Your task to perform on an android device: empty trash in the gmail app Image 0: 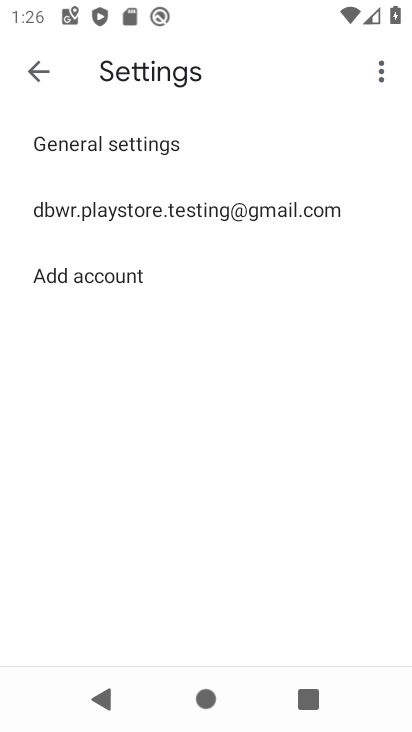
Step 0: press back button
Your task to perform on an android device: empty trash in the gmail app Image 1: 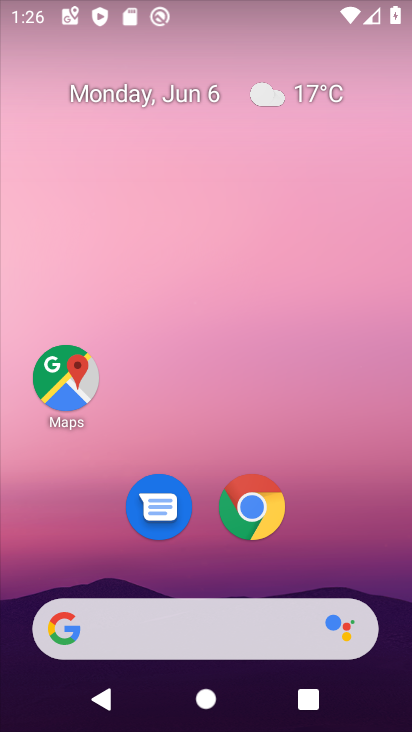
Step 1: drag from (394, 548) to (195, 0)
Your task to perform on an android device: empty trash in the gmail app Image 2: 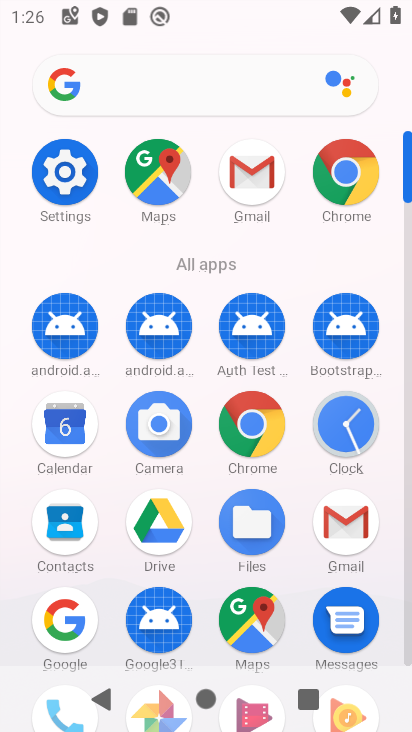
Step 2: drag from (8, 597) to (16, 213)
Your task to perform on an android device: empty trash in the gmail app Image 3: 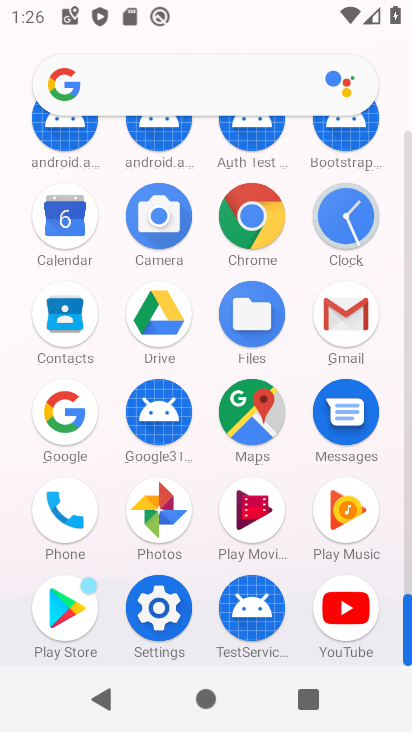
Step 3: click (344, 303)
Your task to perform on an android device: empty trash in the gmail app Image 4: 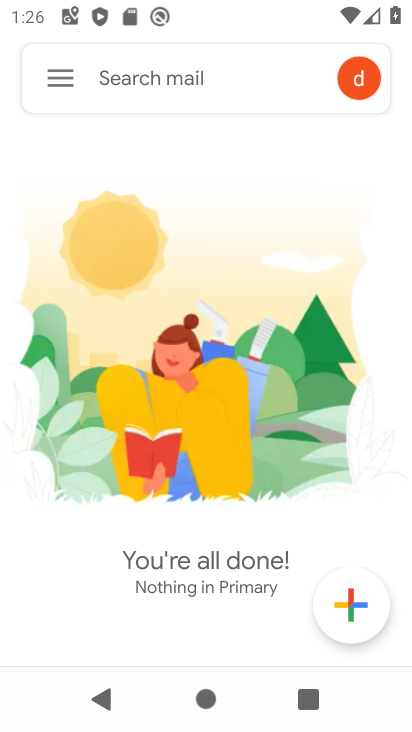
Step 4: click (61, 83)
Your task to perform on an android device: empty trash in the gmail app Image 5: 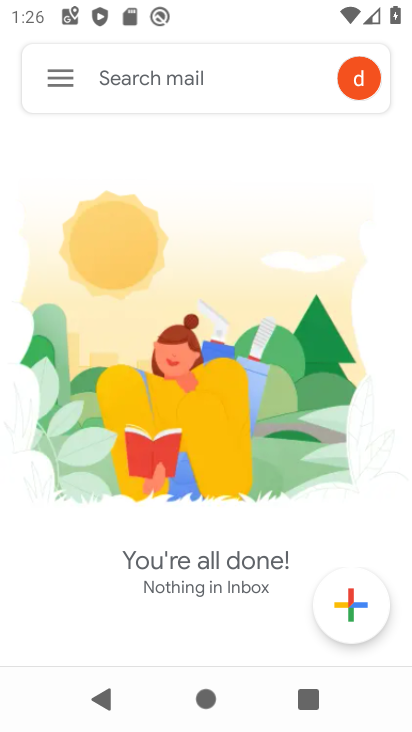
Step 5: click (58, 76)
Your task to perform on an android device: empty trash in the gmail app Image 6: 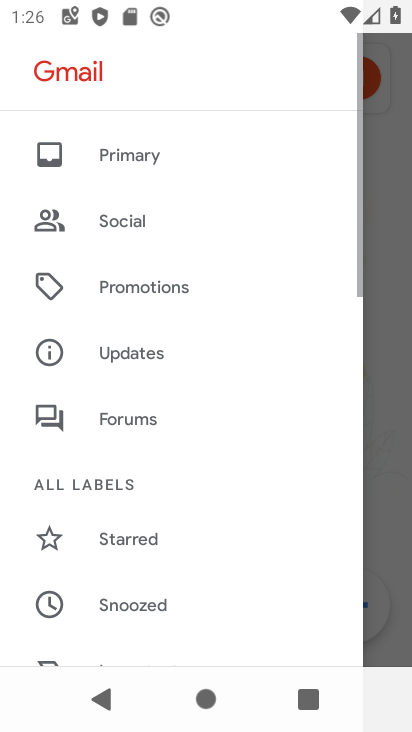
Step 6: drag from (218, 559) to (213, 137)
Your task to perform on an android device: empty trash in the gmail app Image 7: 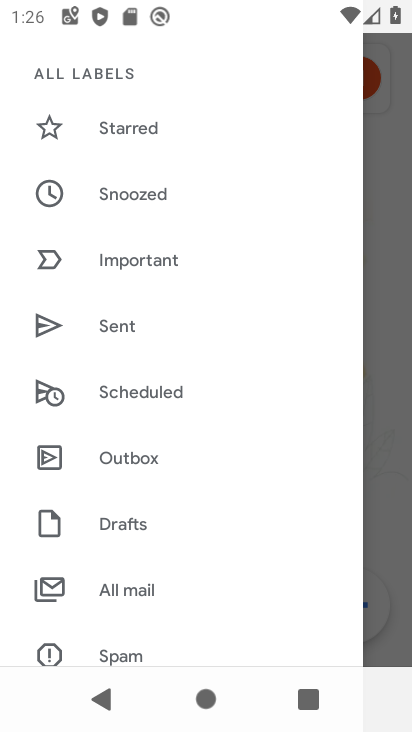
Step 7: drag from (224, 541) to (230, 84)
Your task to perform on an android device: empty trash in the gmail app Image 8: 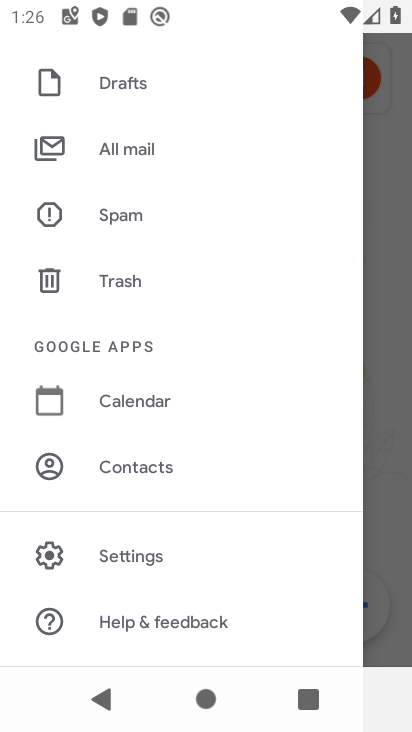
Step 8: drag from (173, 518) to (184, 102)
Your task to perform on an android device: empty trash in the gmail app Image 9: 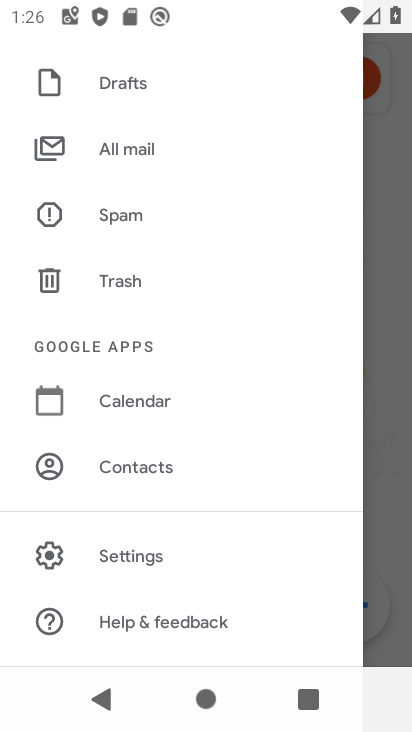
Step 9: click (131, 270)
Your task to perform on an android device: empty trash in the gmail app Image 10: 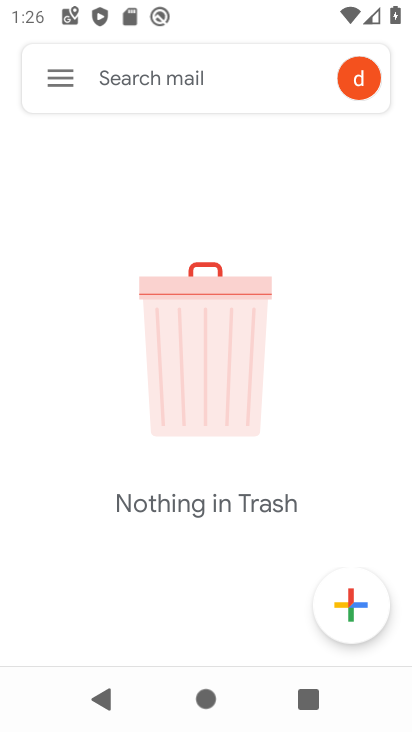
Step 10: task complete